Your task to perform on an android device: open the mobile data screen to see how much data has been used Image 0: 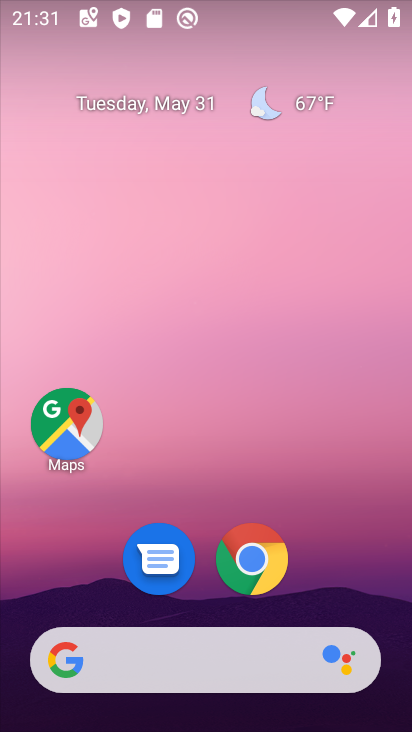
Step 0: drag from (353, 566) to (335, 33)
Your task to perform on an android device: open the mobile data screen to see how much data has been used Image 1: 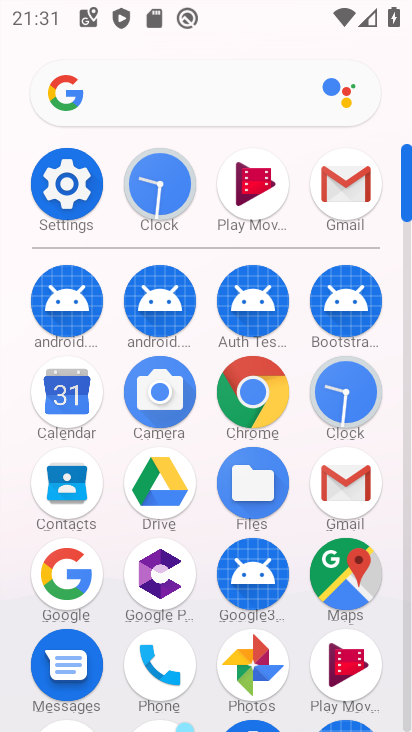
Step 1: click (70, 175)
Your task to perform on an android device: open the mobile data screen to see how much data has been used Image 2: 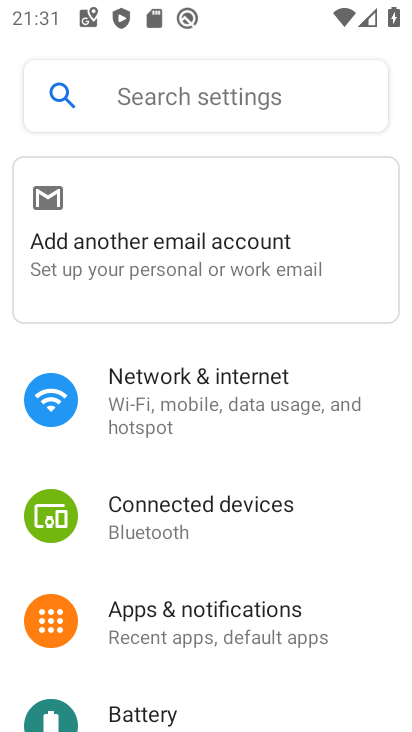
Step 2: click (184, 407)
Your task to perform on an android device: open the mobile data screen to see how much data has been used Image 3: 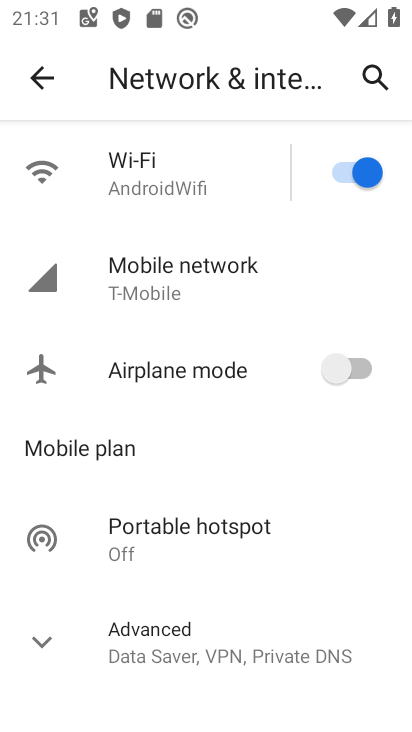
Step 3: click (152, 270)
Your task to perform on an android device: open the mobile data screen to see how much data has been used Image 4: 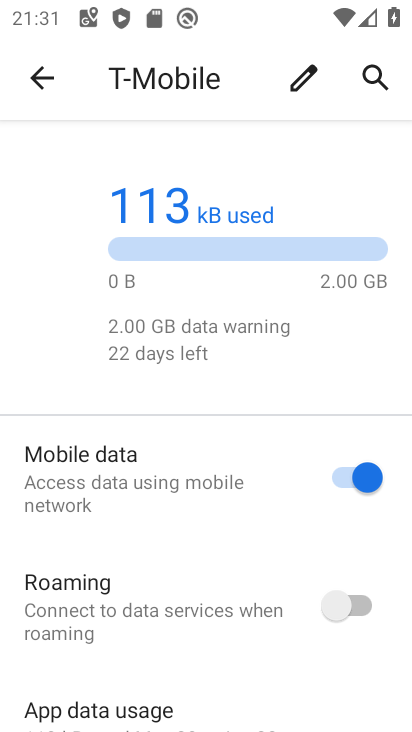
Step 4: task complete